Your task to perform on an android device: Search for vegetarian restaurants on Maps Image 0: 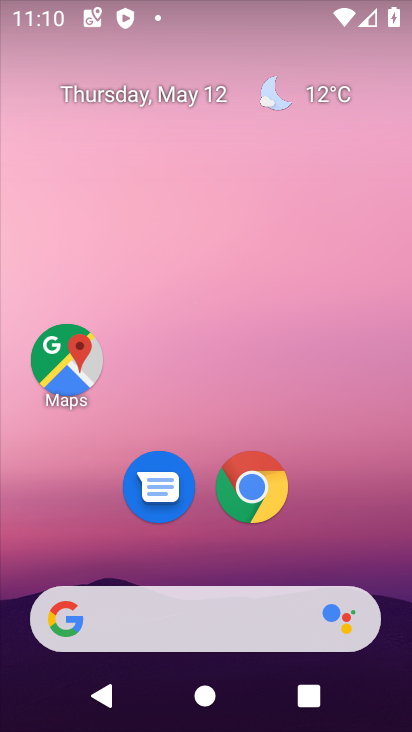
Step 0: click (65, 363)
Your task to perform on an android device: Search for vegetarian restaurants on Maps Image 1: 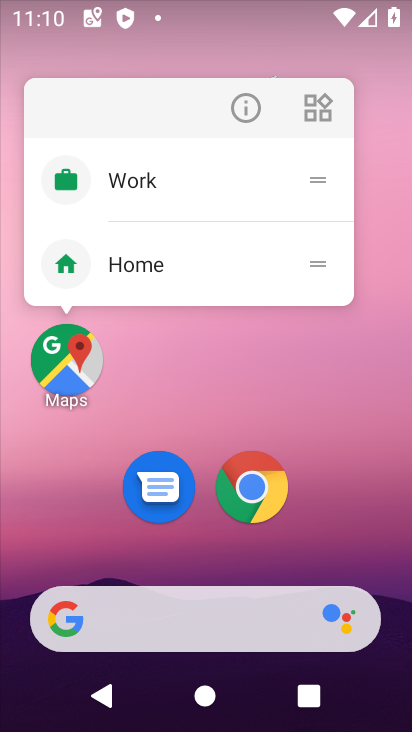
Step 1: click (70, 365)
Your task to perform on an android device: Search for vegetarian restaurants on Maps Image 2: 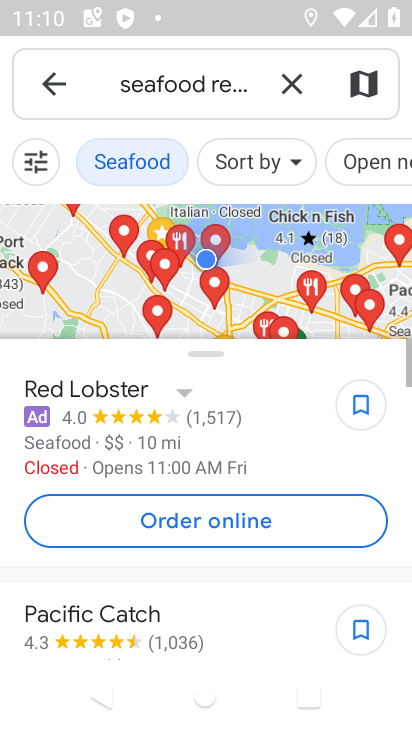
Step 2: click (289, 89)
Your task to perform on an android device: Search for vegetarian restaurants on Maps Image 3: 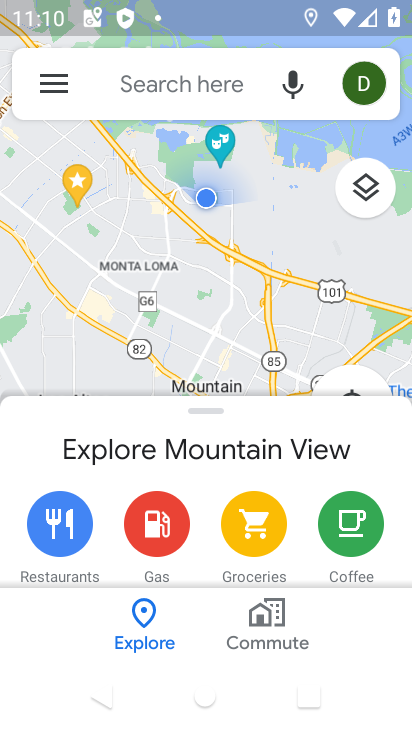
Step 3: click (113, 80)
Your task to perform on an android device: Search for vegetarian restaurants on Maps Image 4: 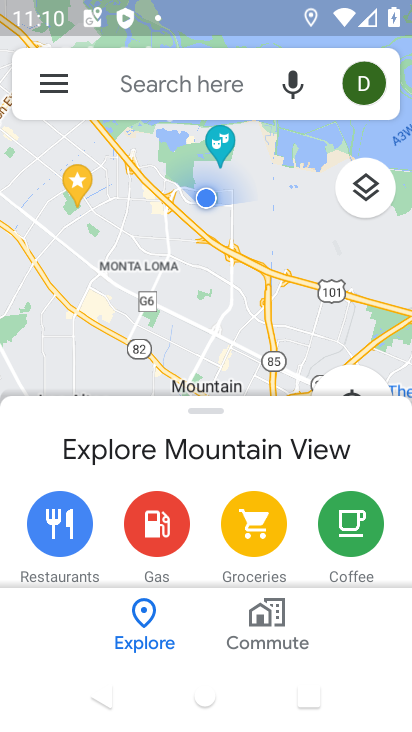
Step 4: click (122, 84)
Your task to perform on an android device: Search for vegetarian restaurants on Maps Image 5: 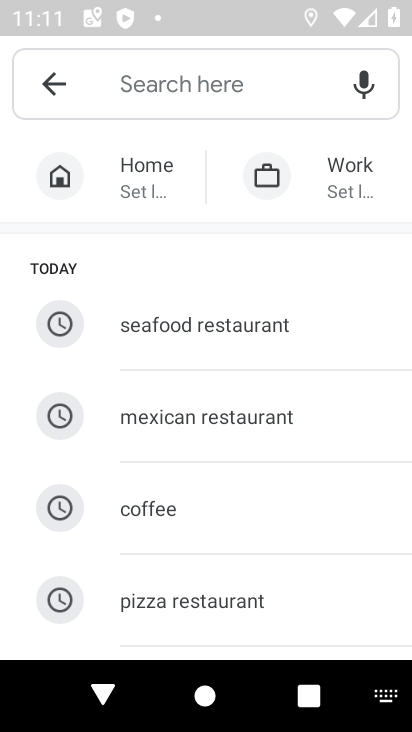
Step 5: type "vegetarian restaurant "
Your task to perform on an android device: Search for vegetarian restaurants on Maps Image 6: 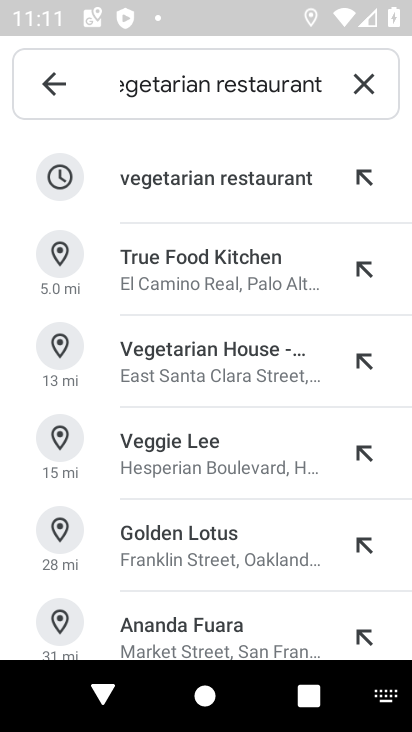
Step 6: click (188, 178)
Your task to perform on an android device: Search for vegetarian restaurants on Maps Image 7: 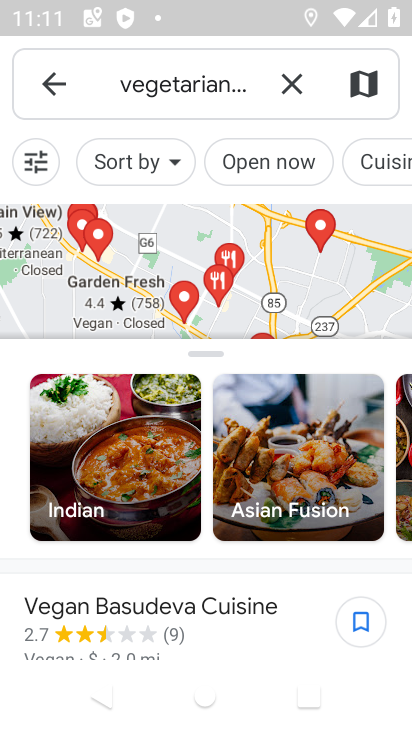
Step 7: task complete